Your task to perform on an android device: turn off smart reply in the gmail app Image 0: 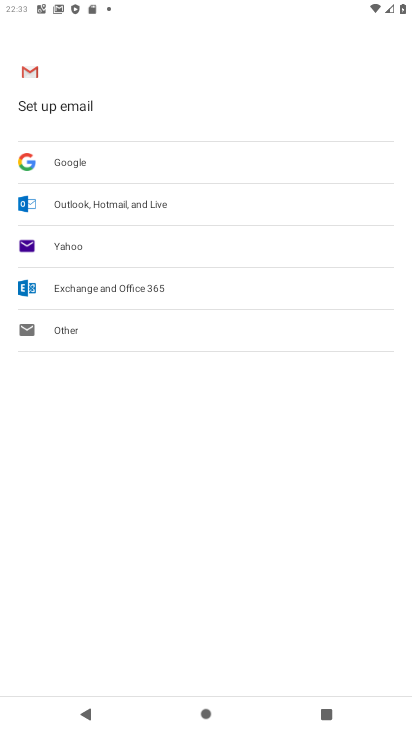
Step 0: press home button
Your task to perform on an android device: turn off smart reply in the gmail app Image 1: 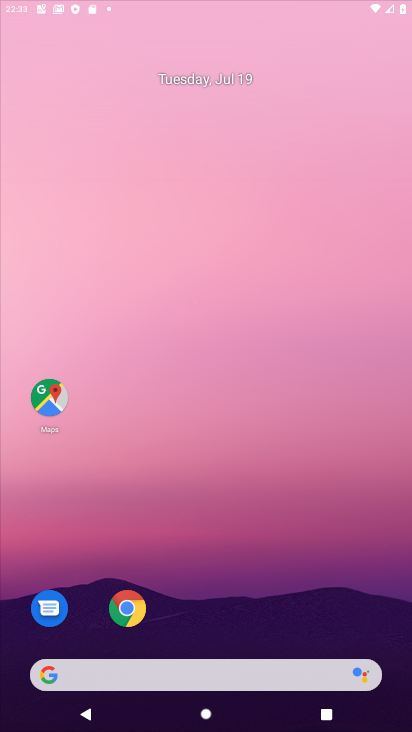
Step 1: click (252, 90)
Your task to perform on an android device: turn off smart reply in the gmail app Image 2: 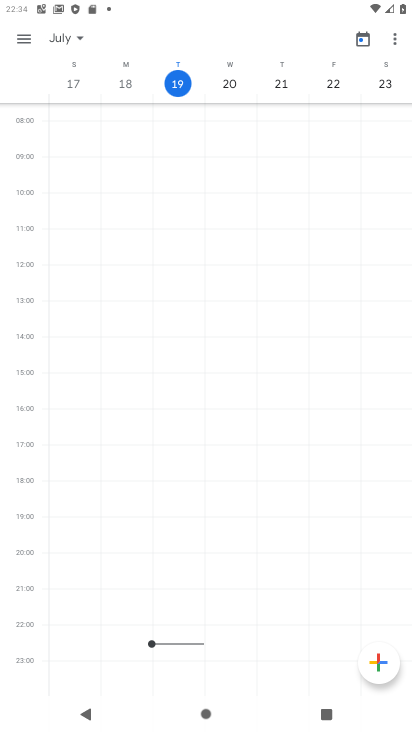
Step 2: press home button
Your task to perform on an android device: turn off smart reply in the gmail app Image 3: 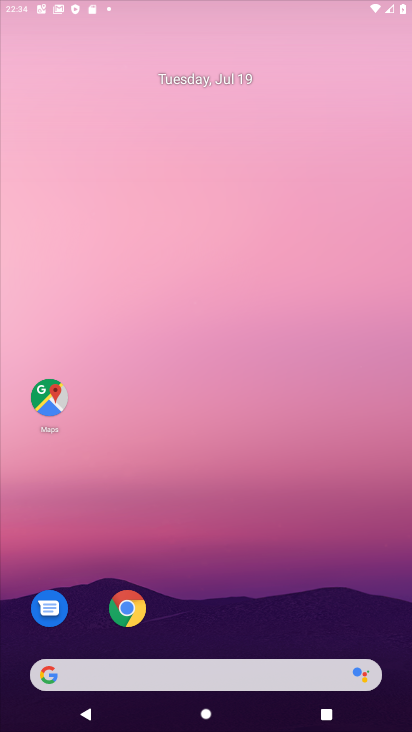
Step 3: drag from (348, 595) to (201, 102)
Your task to perform on an android device: turn off smart reply in the gmail app Image 4: 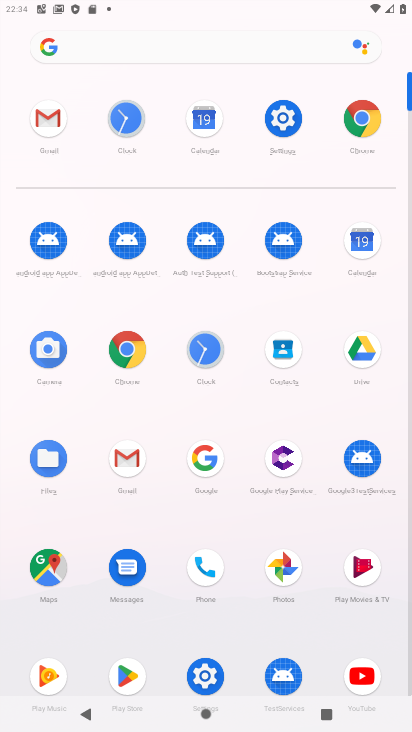
Step 4: click (47, 109)
Your task to perform on an android device: turn off smart reply in the gmail app Image 5: 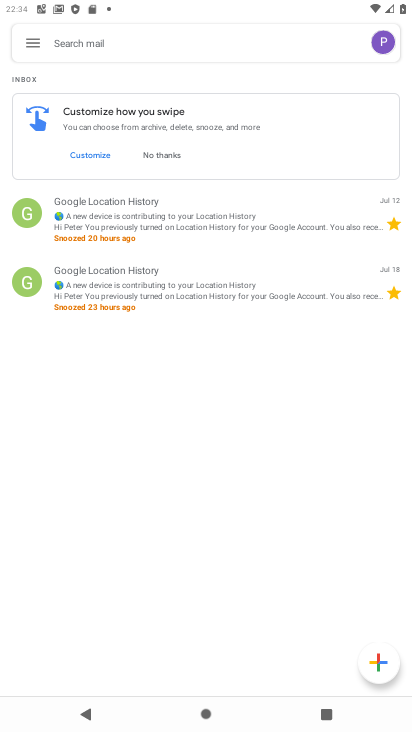
Step 5: click (34, 40)
Your task to perform on an android device: turn off smart reply in the gmail app Image 6: 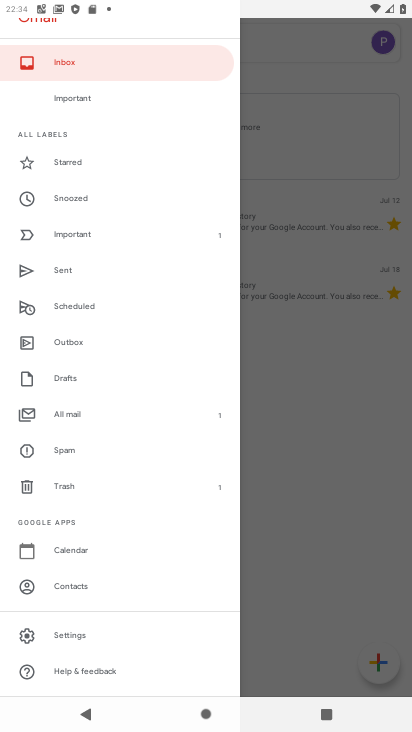
Step 6: click (103, 639)
Your task to perform on an android device: turn off smart reply in the gmail app Image 7: 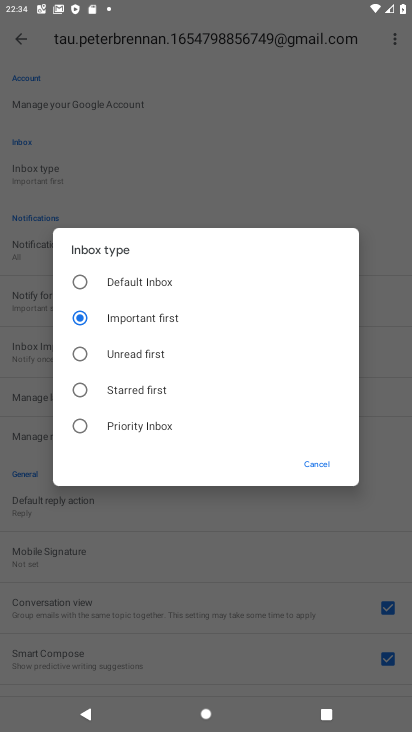
Step 7: click (306, 460)
Your task to perform on an android device: turn off smart reply in the gmail app Image 8: 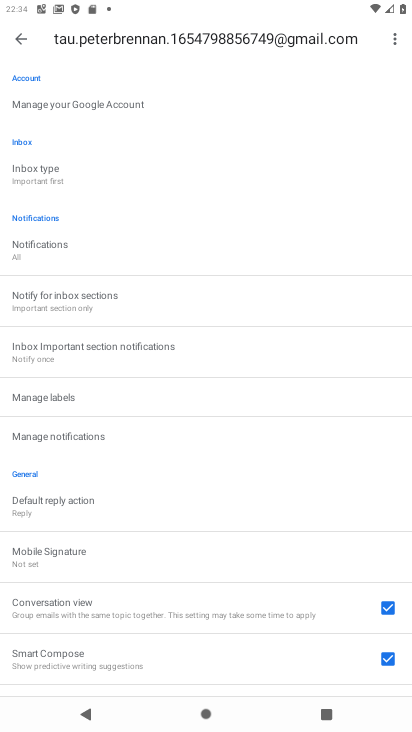
Step 8: drag from (260, 650) to (266, 247)
Your task to perform on an android device: turn off smart reply in the gmail app Image 9: 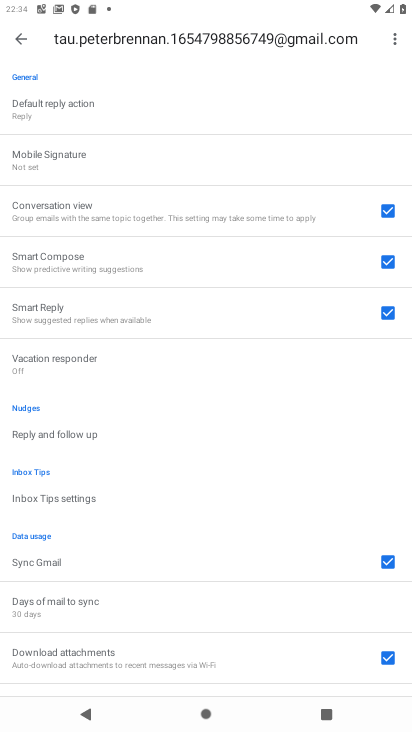
Step 9: click (383, 310)
Your task to perform on an android device: turn off smart reply in the gmail app Image 10: 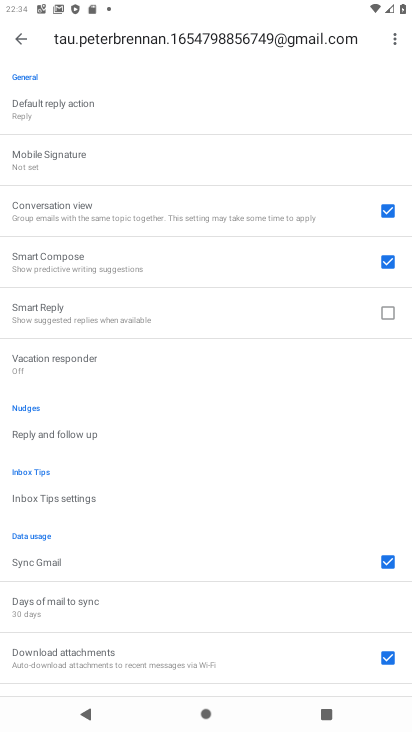
Step 10: task complete